Your task to perform on an android device: turn off sleep mode Image 0: 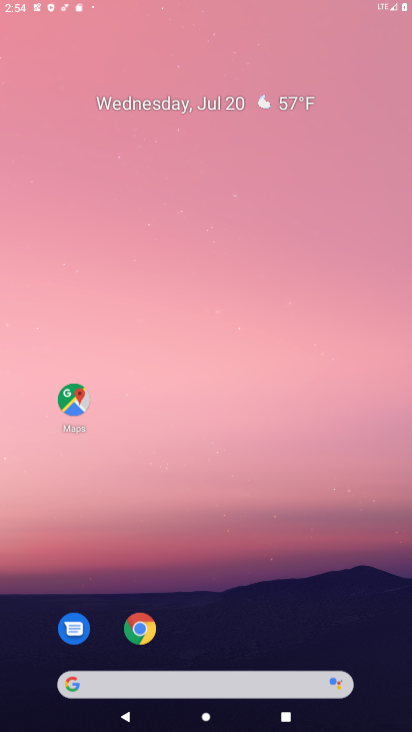
Step 0: click (188, 267)
Your task to perform on an android device: turn off sleep mode Image 1: 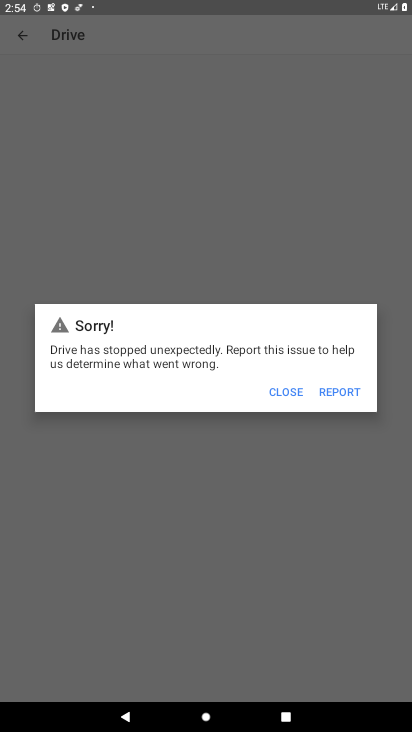
Step 1: press home button
Your task to perform on an android device: turn off sleep mode Image 2: 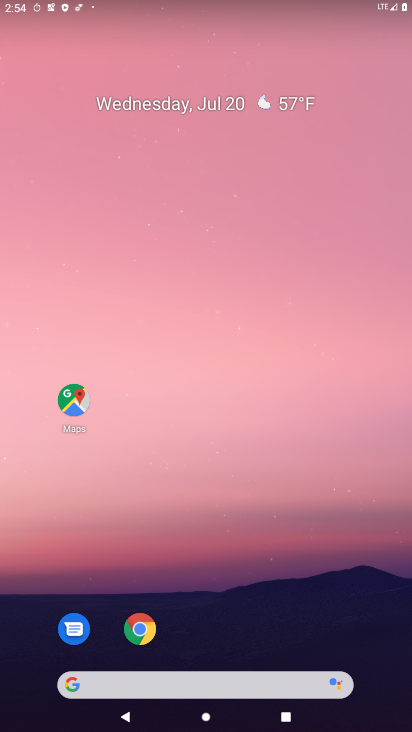
Step 2: drag from (229, 670) to (172, 389)
Your task to perform on an android device: turn off sleep mode Image 3: 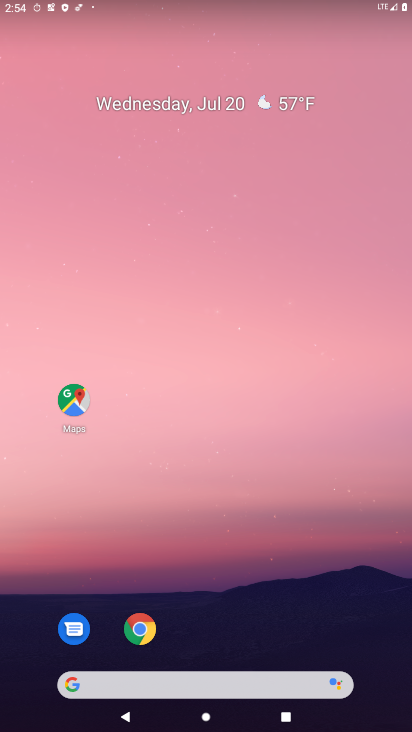
Step 3: drag from (198, 684) to (188, 239)
Your task to perform on an android device: turn off sleep mode Image 4: 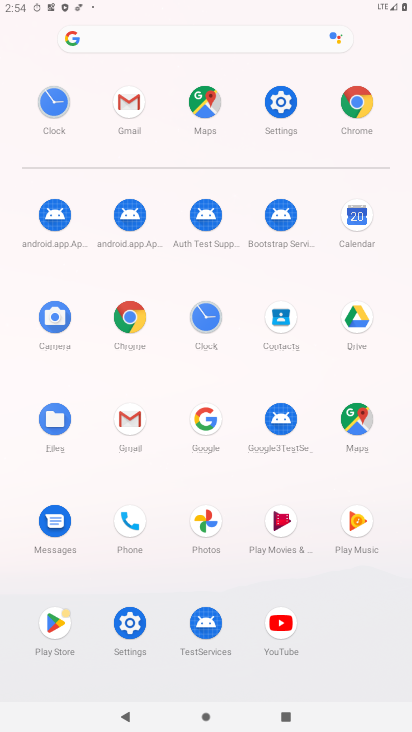
Step 4: click (286, 102)
Your task to perform on an android device: turn off sleep mode Image 5: 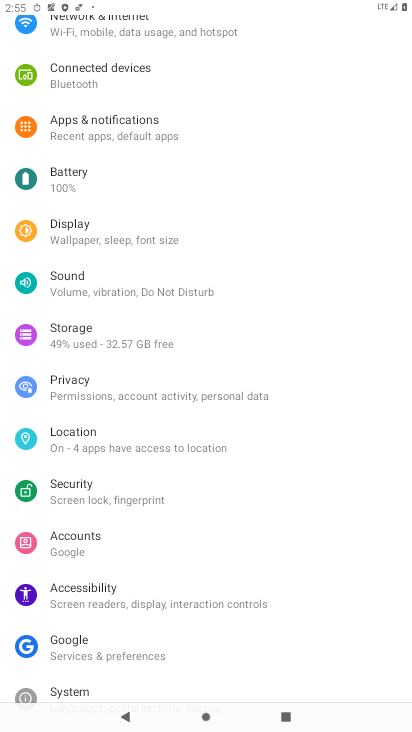
Step 5: click (98, 223)
Your task to perform on an android device: turn off sleep mode Image 6: 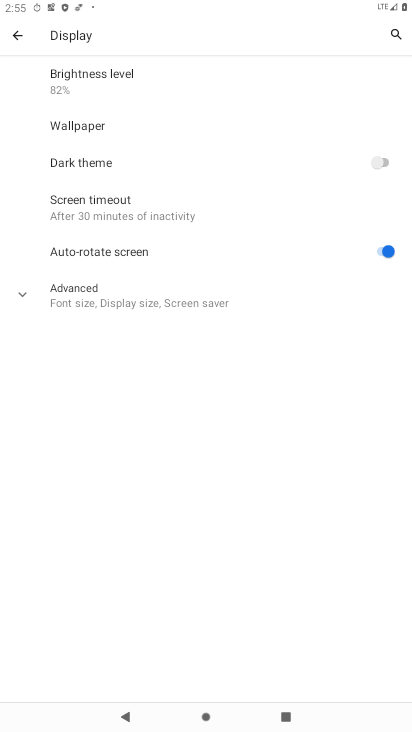
Step 6: click (197, 297)
Your task to perform on an android device: turn off sleep mode Image 7: 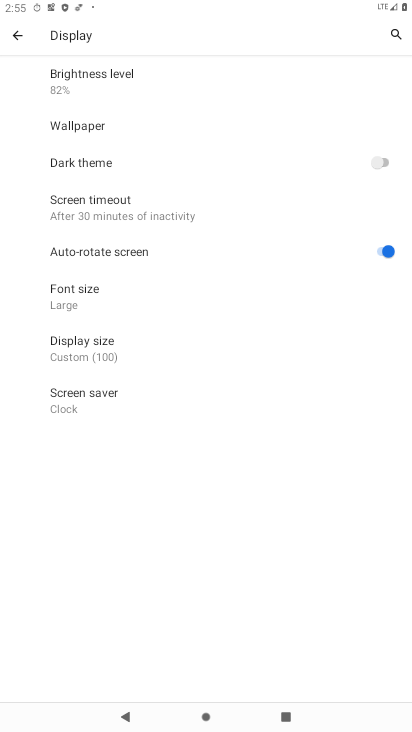
Step 7: task complete